Your task to perform on an android device: create a new album in the google photos Image 0: 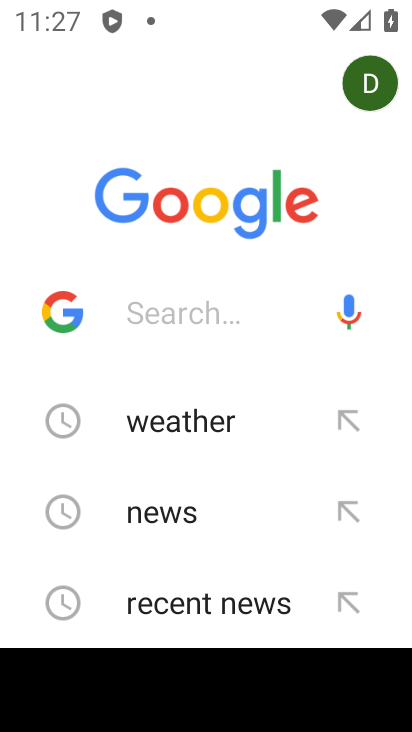
Step 0: press back button
Your task to perform on an android device: create a new album in the google photos Image 1: 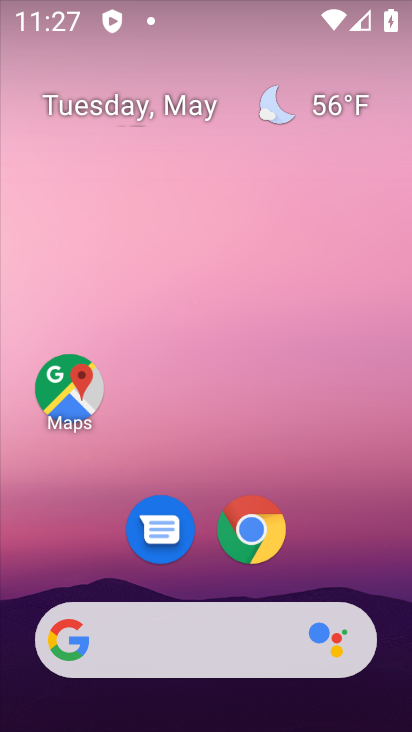
Step 1: click (378, 291)
Your task to perform on an android device: create a new album in the google photos Image 2: 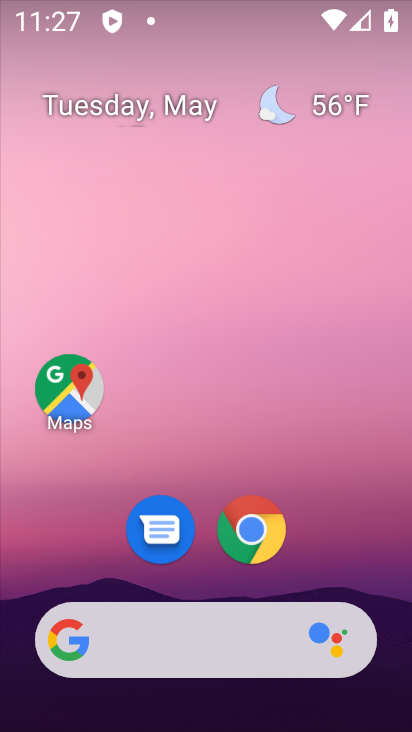
Step 2: drag from (387, 557) to (382, 218)
Your task to perform on an android device: create a new album in the google photos Image 3: 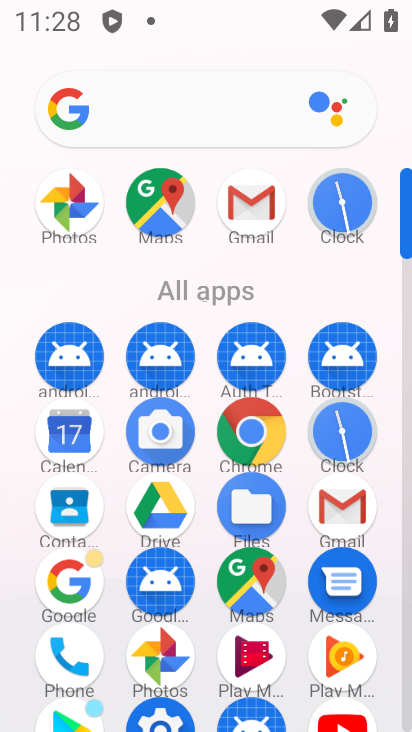
Step 3: click (168, 648)
Your task to perform on an android device: create a new album in the google photos Image 4: 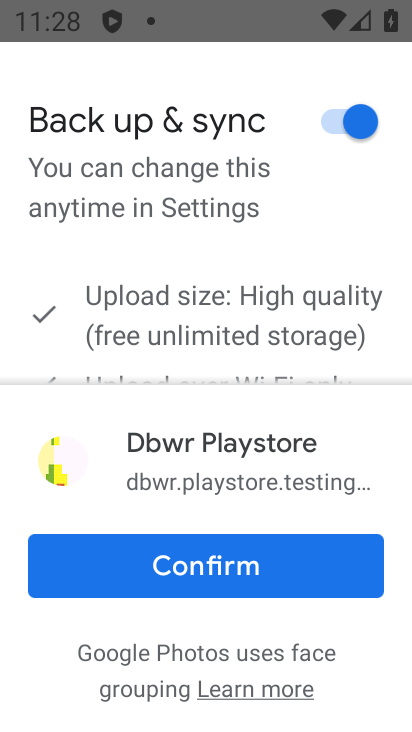
Step 4: click (244, 575)
Your task to perform on an android device: create a new album in the google photos Image 5: 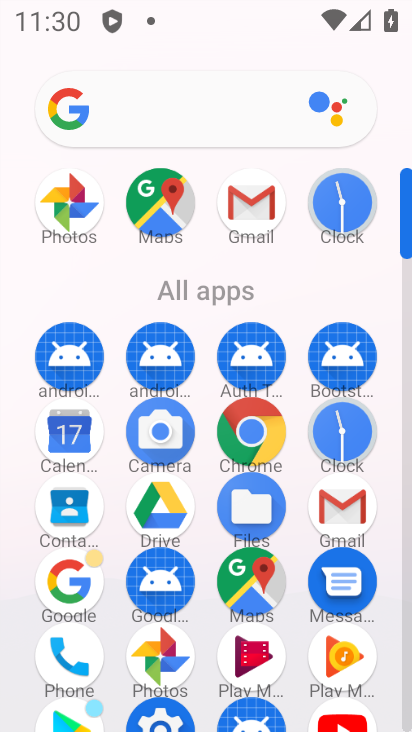
Step 5: click (142, 653)
Your task to perform on an android device: create a new album in the google photos Image 6: 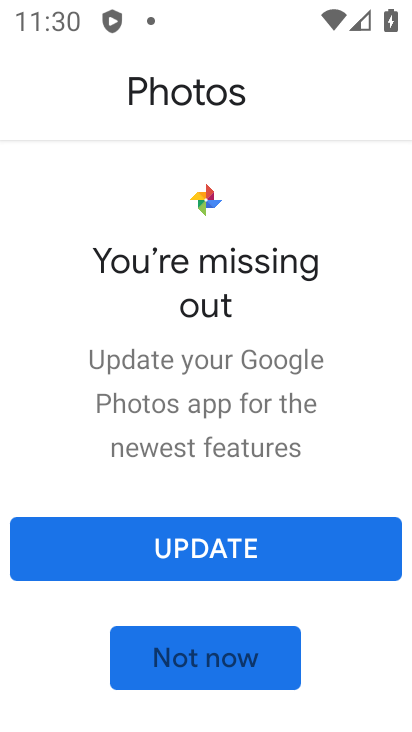
Step 6: click (230, 552)
Your task to perform on an android device: create a new album in the google photos Image 7: 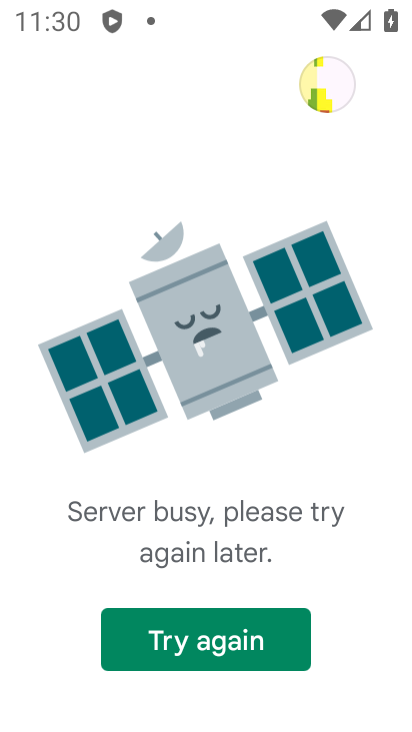
Step 7: task complete